Your task to perform on an android device: add a contact Image 0: 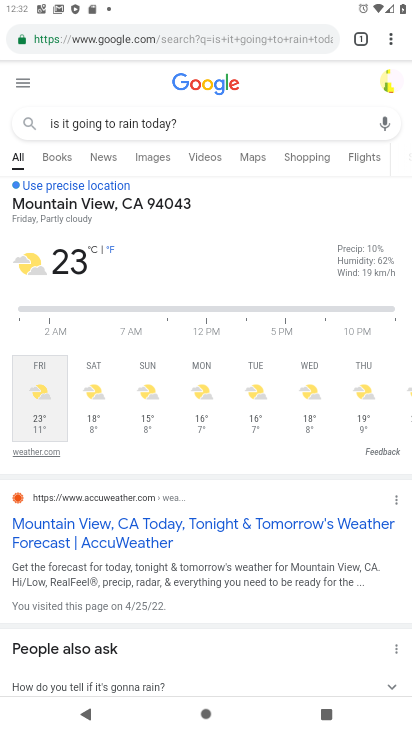
Step 0: press home button
Your task to perform on an android device: add a contact Image 1: 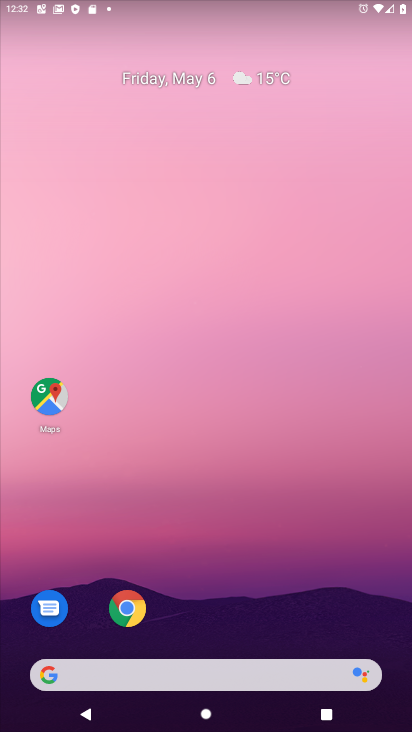
Step 1: drag from (213, 558) to (292, 44)
Your task to perform on an android device: add a contact Image 2: 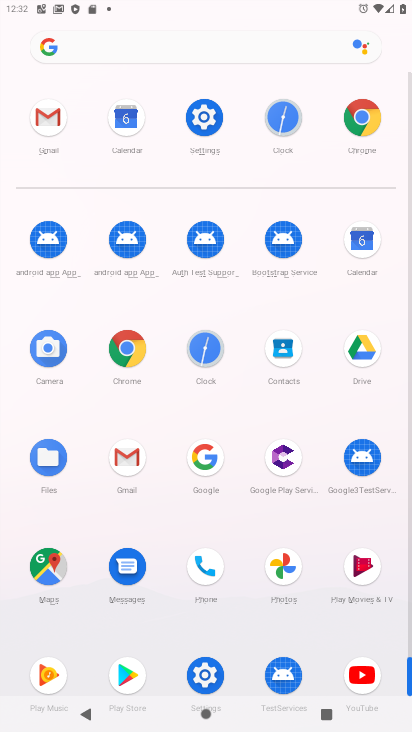
Step 2: click (295, 357)
Your task to perform on an android device: add a contact Image 3: 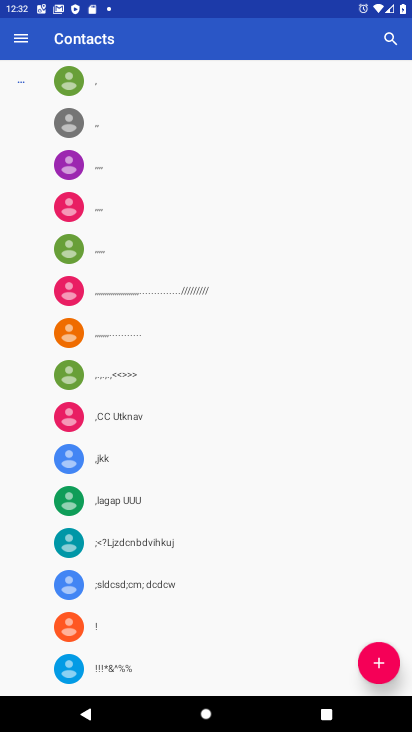
Step 3: click (377, 665)
Your task to perform on an android device: add a contact Image 4: 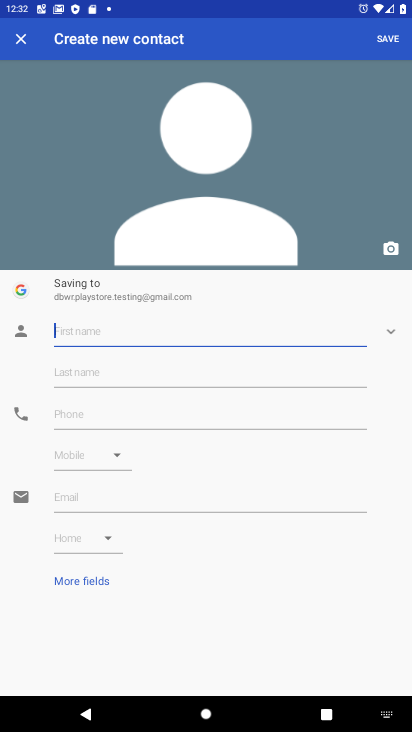
Step 4: click (137, 328)
Your task to perform on an android device: add a contact Image 5: 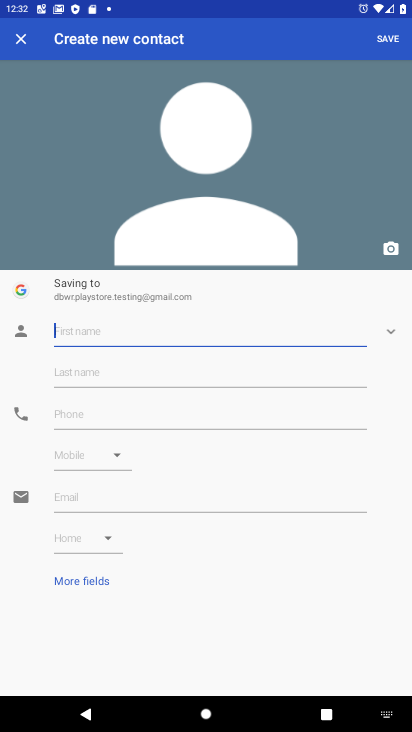
Step 5: type "sumo"
Your task to perform on an android device: add a contact Image 6: 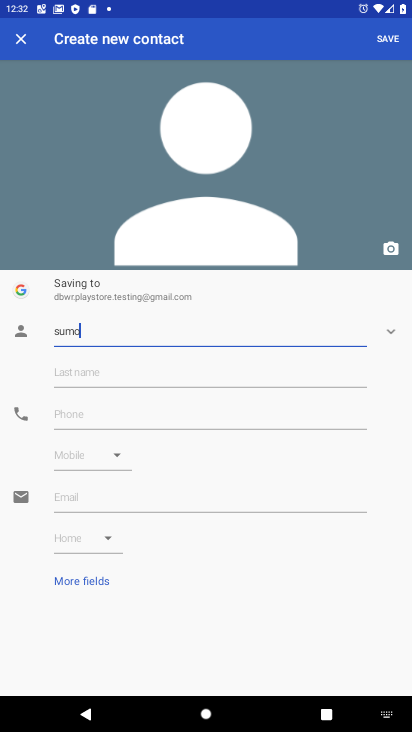
Step 6: click (159, 424)
Your task to perform on an android device: add a contact Image 7: 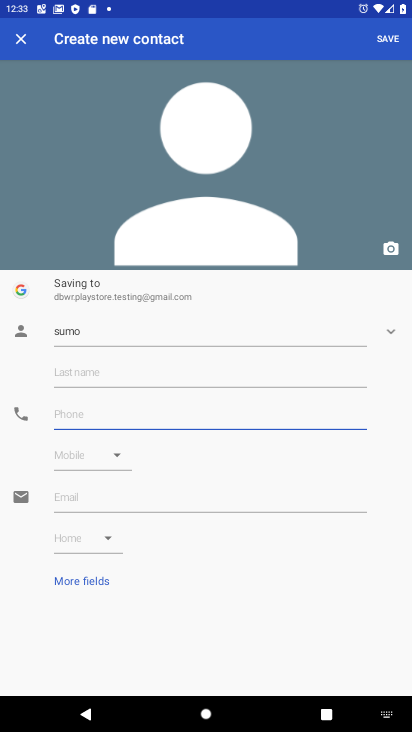
Step 7: type "453365456"
Your task to perform on an android device: add a contact Image 8: 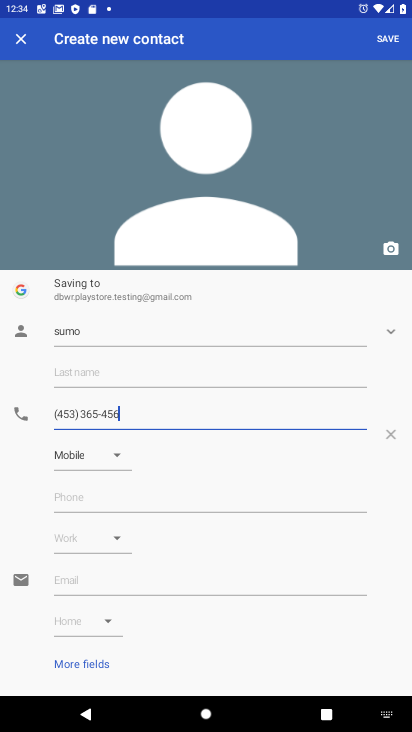
Step 8: click (382, 41)
Your task to perform on an android device: add a contact Image 9: 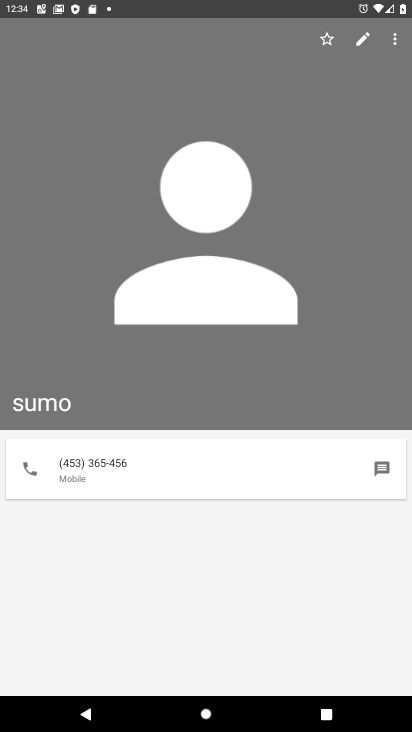
Step 9: task complete